Your task to perform on an android device: turn smart compose on in the gmail app Image 0: 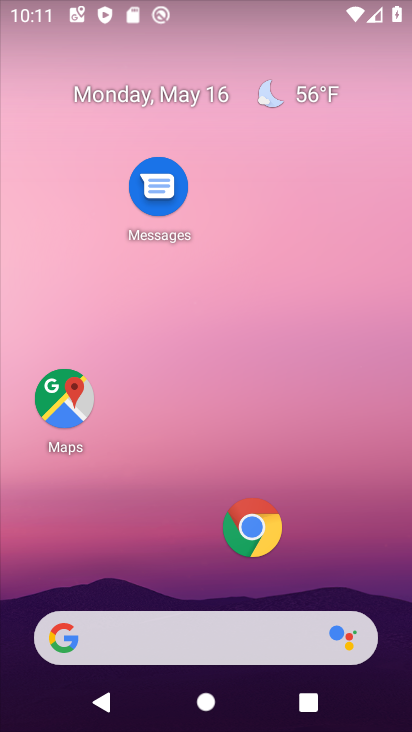
Step 0: drag from (164, 541) to (152, 71)
Your task to perform on an android device: turn smart compose on in the gmail app Image 1: 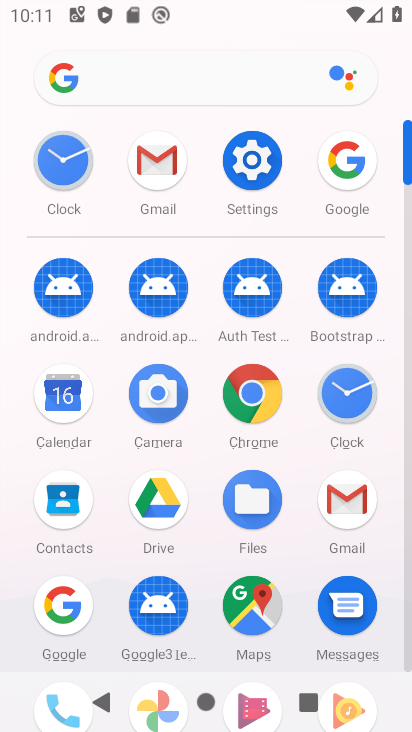
Step 1: click (161, 167)
Your task to perform on an android device: turn smart compose on in the gmail app Image 2: 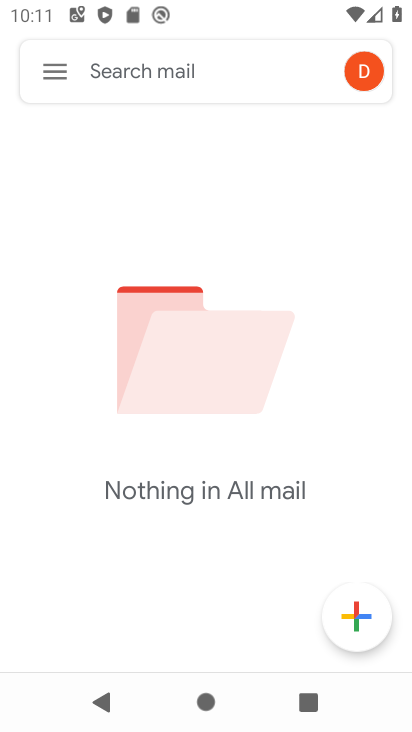
Step 2: click (50, 71)
Your task to perform on an android device: turn smart compose on in the gmail app Image 3: 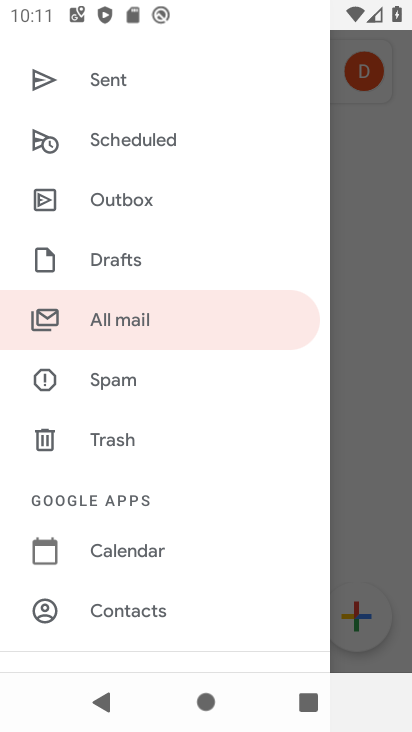
Step 3: drag from (131, 595) to (127, 119)
Your task to perform on an android device: turn smart compose on in the gmail app Image 4: 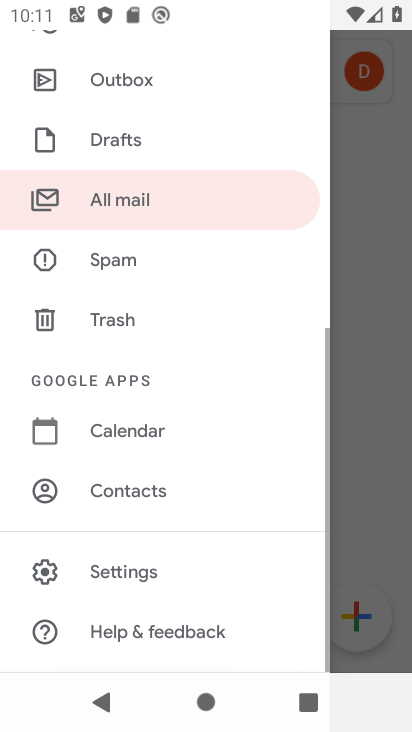
Step 4: click (130, 561)
Your task to perform on an android device: turn smart compose on in the gmail app Image 5: 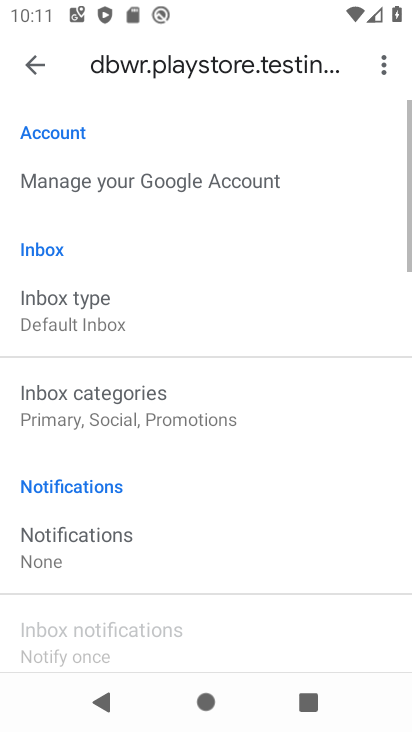
Step 5: task complete